Your task to perform on an android device: Open Reddit.com Image 0: 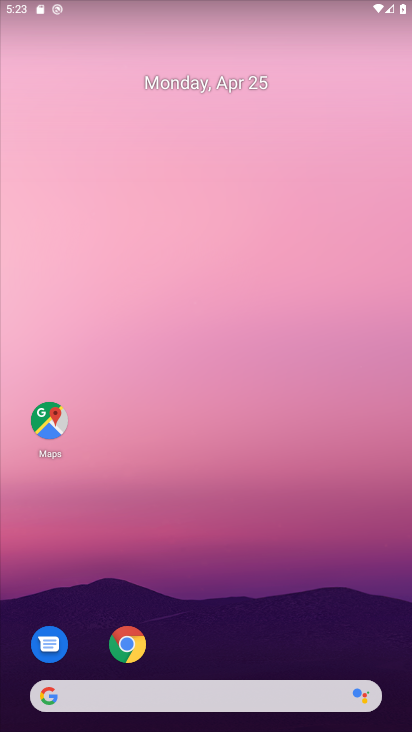
Step 0: click (165, 690)
Your task to perform on an android device: Open Reddit.com Image 1: 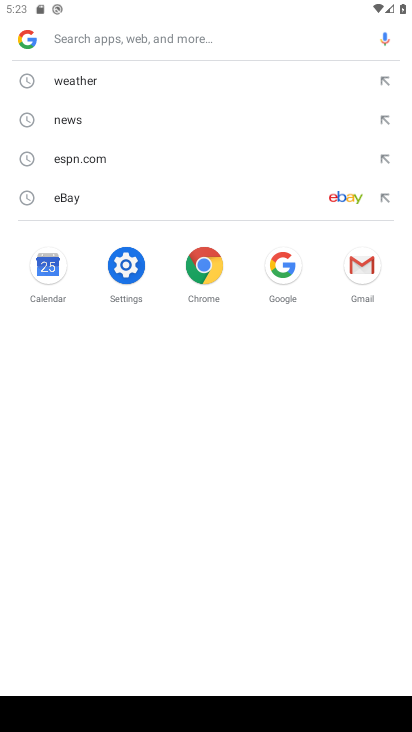
Step 1: type "Reddit.com"
Your task to perform on an android device: Open Reddit.com Image 2: 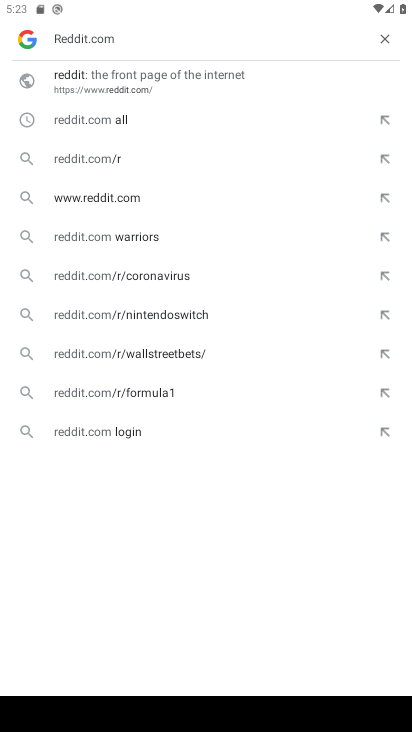
Step 2: click (169, 85)
Your task to perform on an android device: Open Reddit.com Image 3: 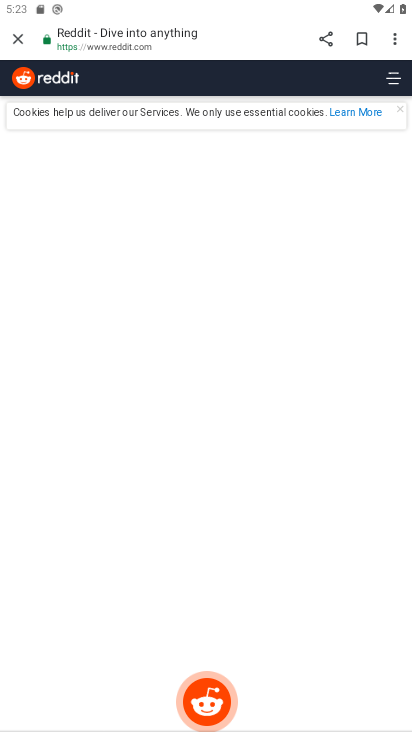
Step 3: task complete